Your task to perform on an android device: turn on javascript in the chrome app Image 0: 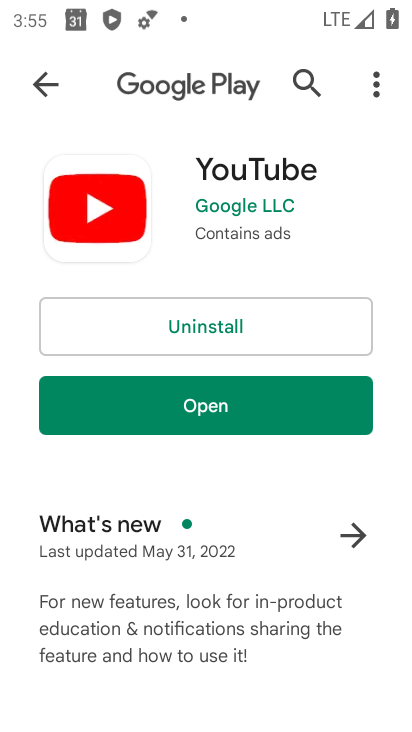
Step 0: press home button
Your task to perform on an android device: turn on javascript in the chrome app Image 1: 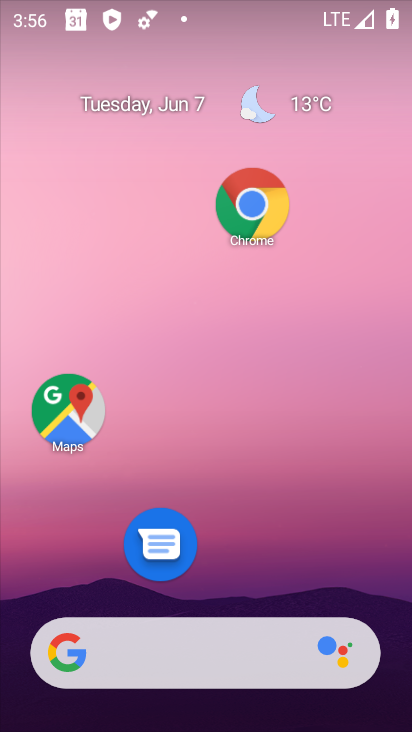
Step 1: click (249, 200)
Your task to perform on an android device: turn on javascript in the chrome app Image 2: 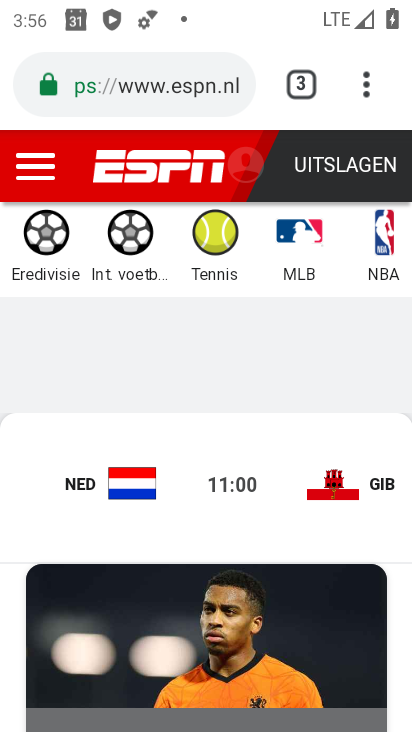
Step 2: click (299, 78)
Your task to perform on an android device: turn on javascript in the chrome app Image 3: 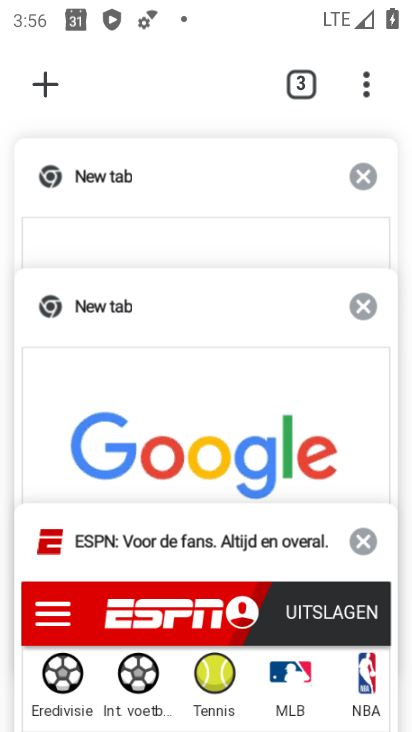
Step 3: click (365, 539)
Your task to perform on an android device: turn on javascript in the chrome app Image 4: 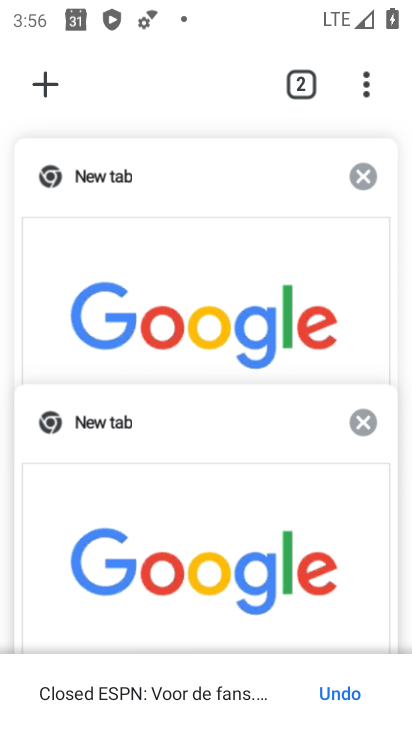
Step 4: click (230, 466)
Your task to perform on an android device: turn on javascript in the chrome app Image 5: 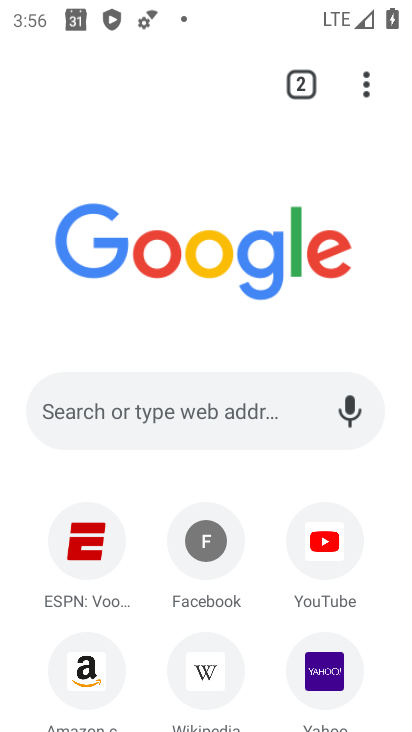
Step 5: click (365, 83)
Your task to perform on an android device: turn on javascript in the chrome app Image 6: 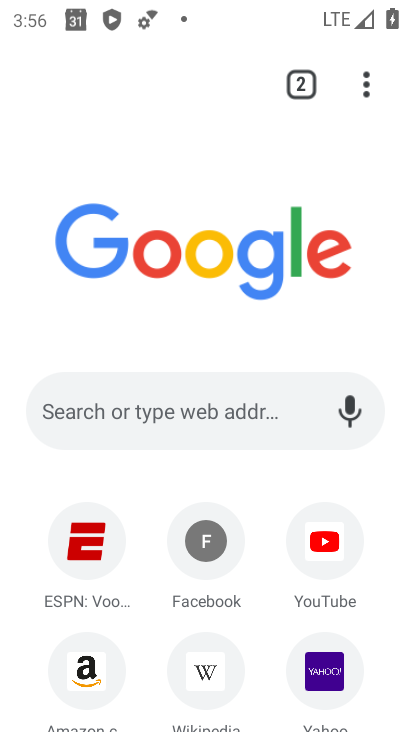
Step 6: click (361, 83)
Your task to perform on an android device: turn on javascript in the chrome app Image 7: 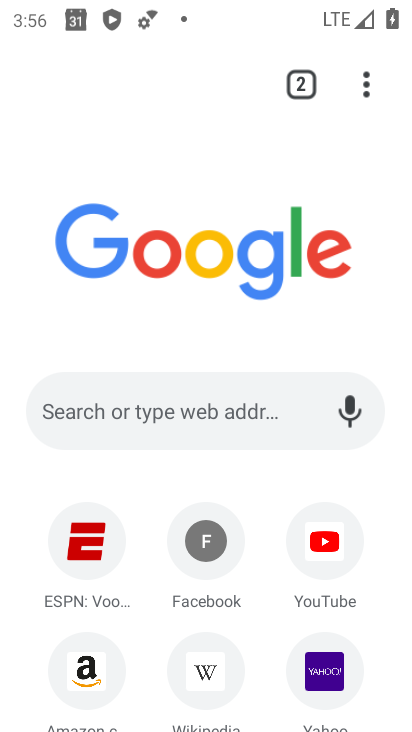
Step 7: click (364, 84)
Your task to perform on an android device: turn on javascript in the chrome app Image 8: 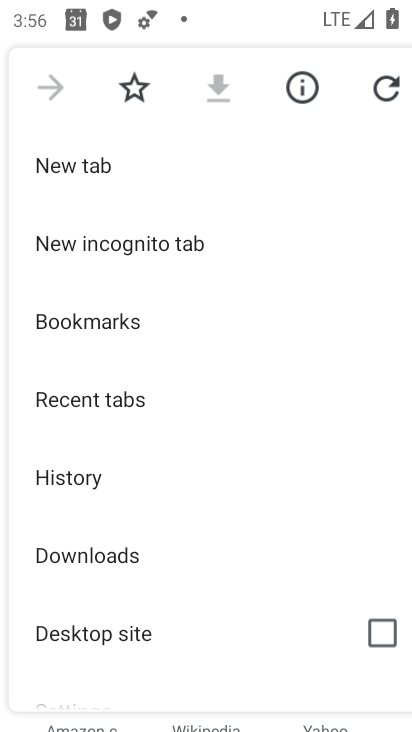
Step 8: drag from (195, 612) to (180, 147)
Your task to perform on an android device: turn on javascript in the chrome app Image 9: 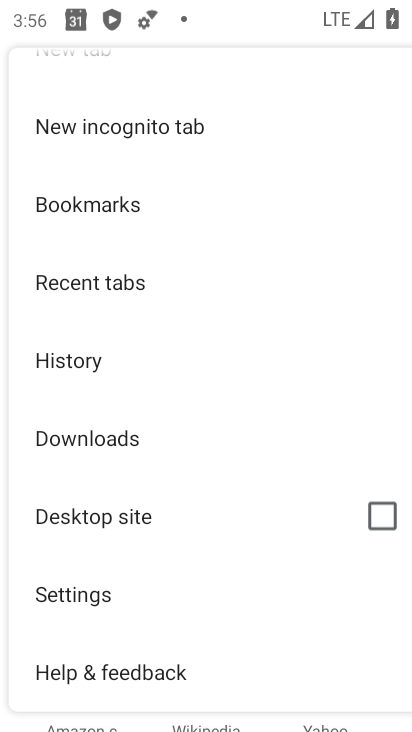
Step 9: click (121, 588)
Your task to perform on an android device: turn on javascript in the chrome app Image 10: 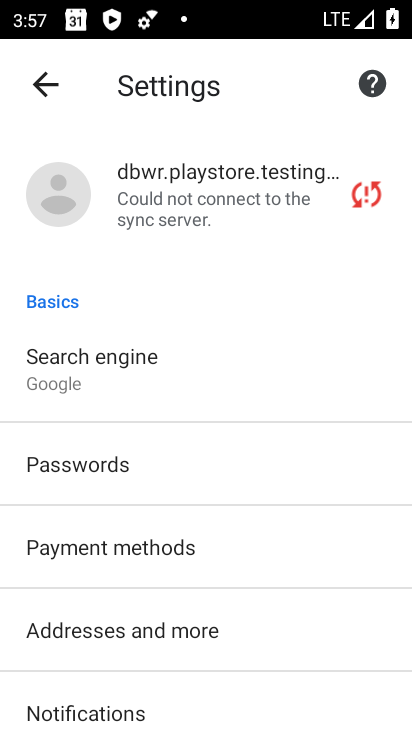
Step 10: drag from (221, 671) to (230, 169)
Your task to perform on an android device: turn on javascript in the chrome app Image 11: 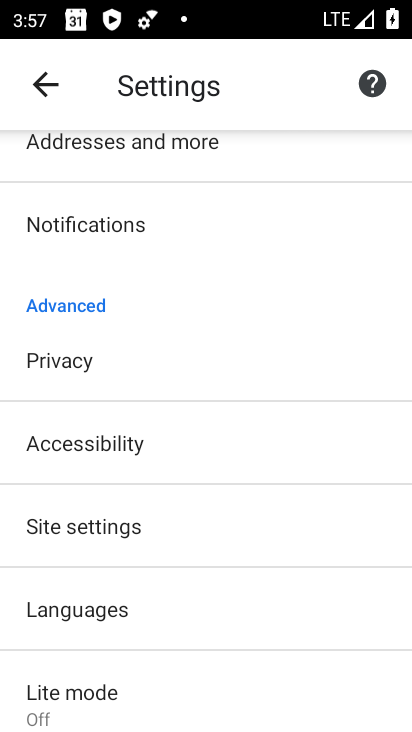
Step 11: click (151, 526)
Your task to perform on an android device: turn on javascript in the chrome app Image 12: 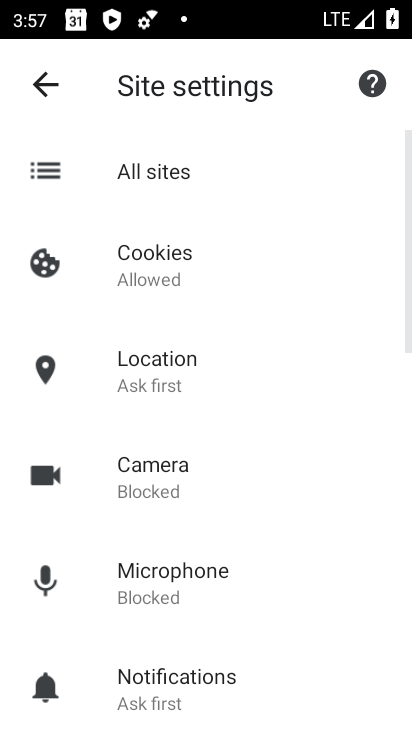
Step 12: drag from (181, 628) to (181, 166)
Your task to perform on an android device: turn on javascript in the chrome app Image 13: 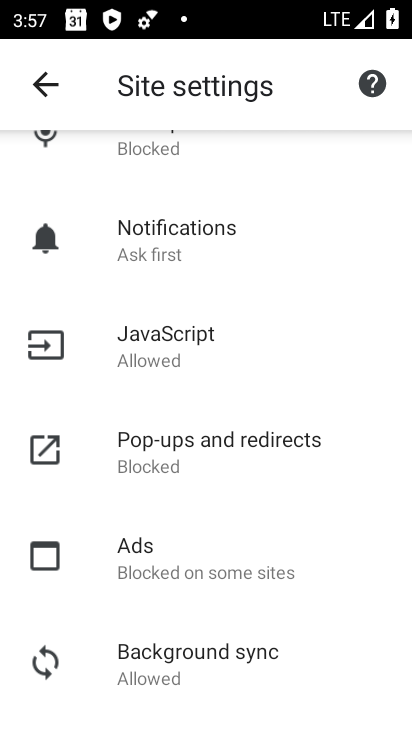
Step 13: click (210, 347)
Your task to perform on an android device: turn on javascript in the chrome app Image 14: 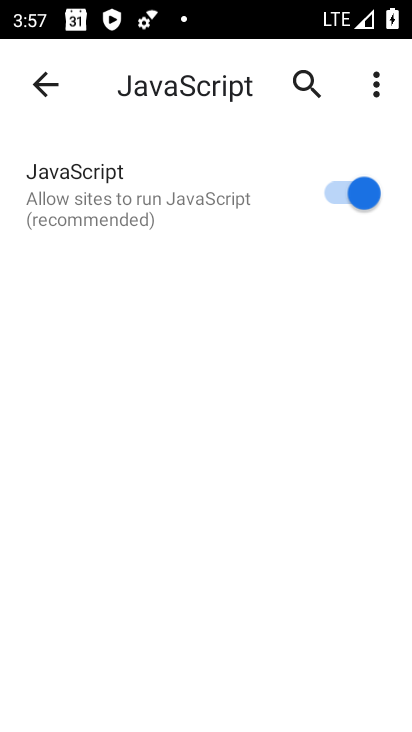
Step 14: task complete